Your task to perform on an android device: set the timer Image 0: 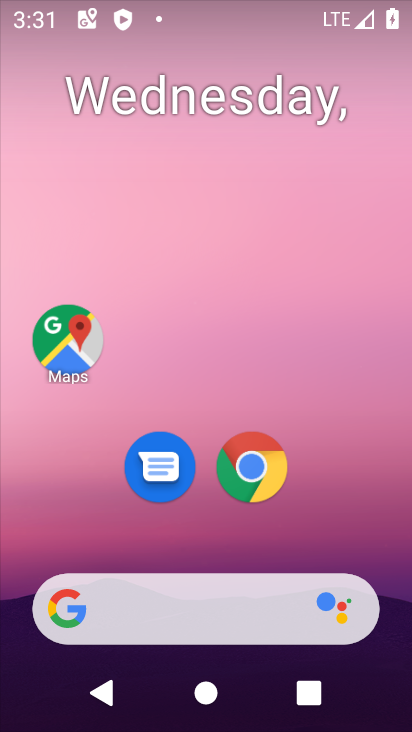
Step 0: drag from (386, 549) to (339, 96)
Your task to perform on an android device: set the timer Image 1: 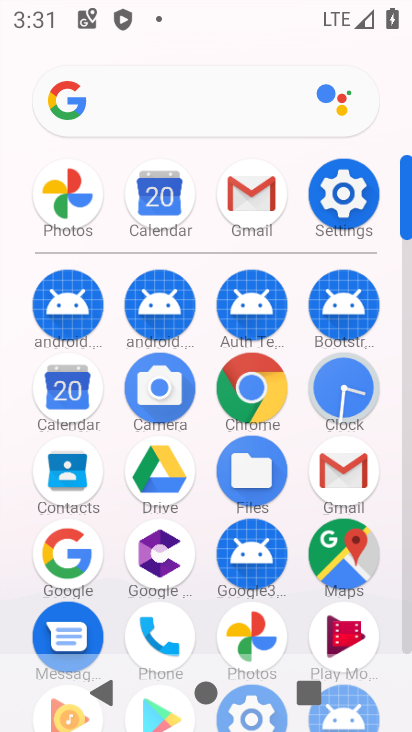
Step 1: click (408, 646)
Your task to perform on an android device: set the timer Image 2: 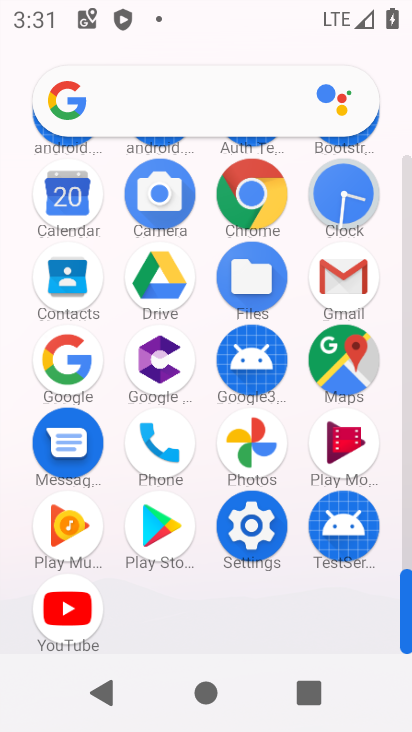
Step 2: click (338, 192)
Your task to perform on an android device: set the timer Image 3: 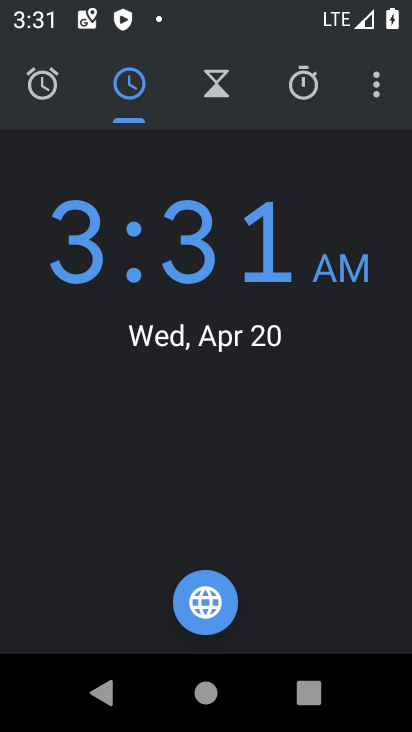
Step 3: click (217, 86)
Your task to perform on an android device: set the timer Image 4: 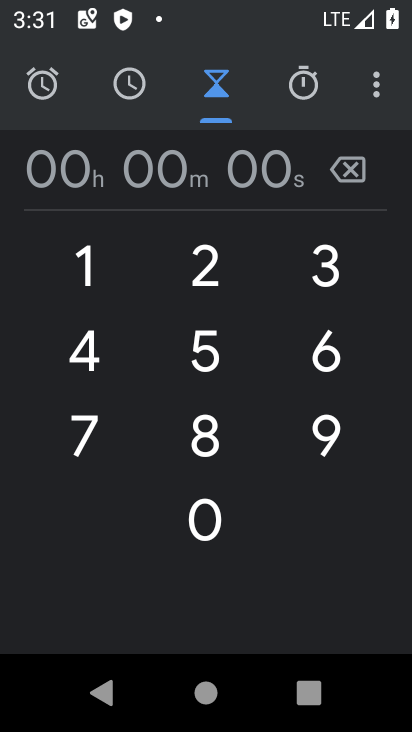
Step 4: click (88, 264)
Your task to perform on an android device: set the timer Image 5: 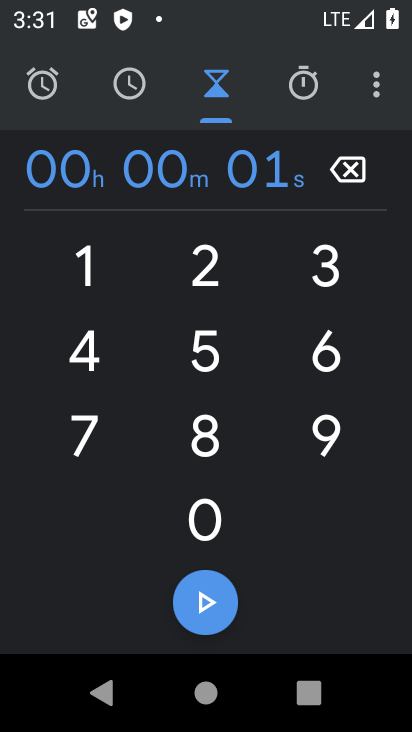
Step 5: click (319, 253)
Your task to perform on an android device: set the timer Image 6: 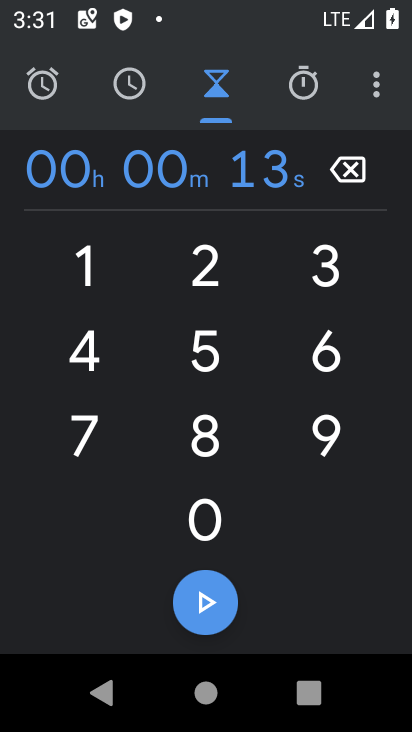
Step 6: click (205, 514)
Your task to perform on an android device: set the timer Image 7: 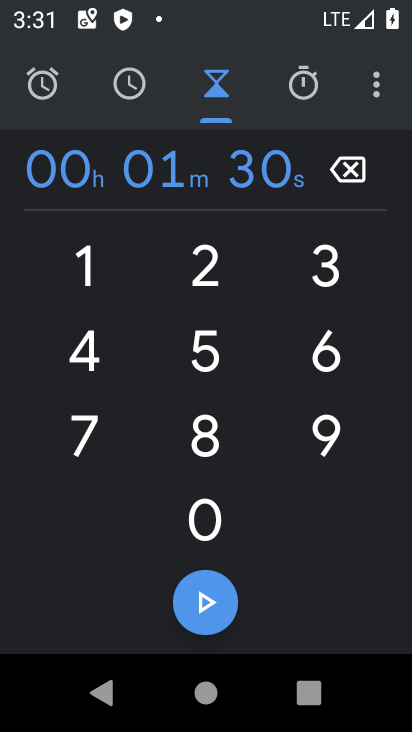
Step 7: click (205, 514)
Your task to perform on an android device: set the timer Image 8: 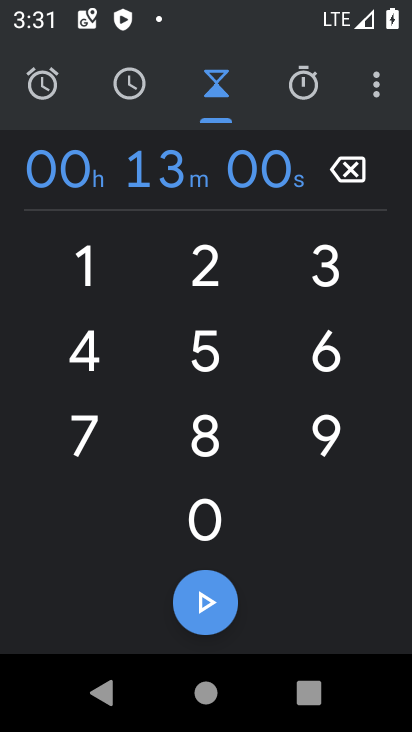
Step 8: click (205, 514)
Your task to perform on an android device: set the timer Image 9: 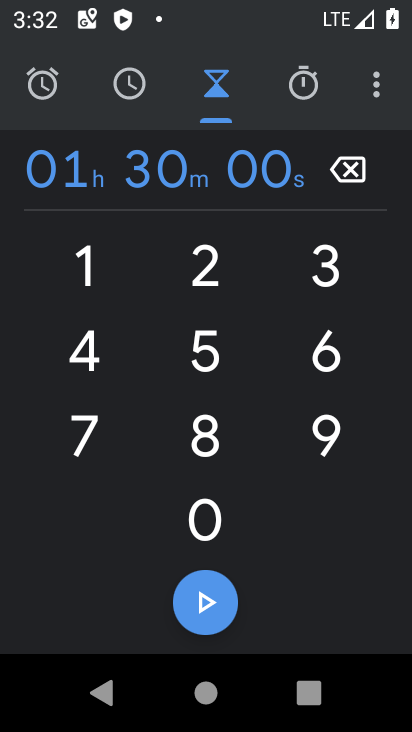
Step 9: task complete